Your task to perform on an android device: snooze an email in the gmail app Image 0: 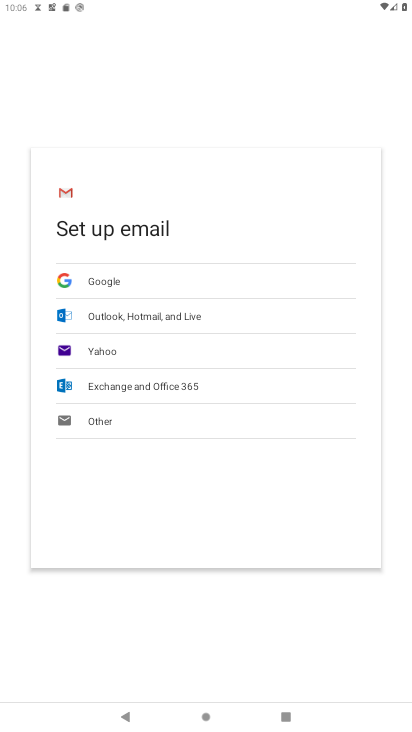
Step 0: press home button
Your task to perform on an android device: snooze an email in the gmail app Image 1: 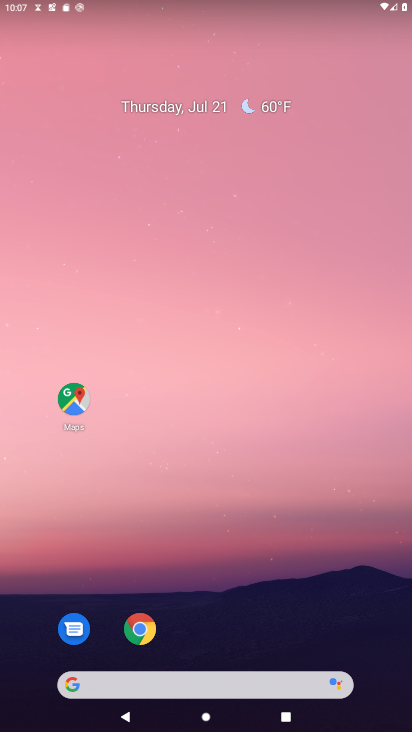
Step 1: drag from (174, 637) to (174, 266)
Your task to perform on an android device: snooze an email in the gmail app Image 2: 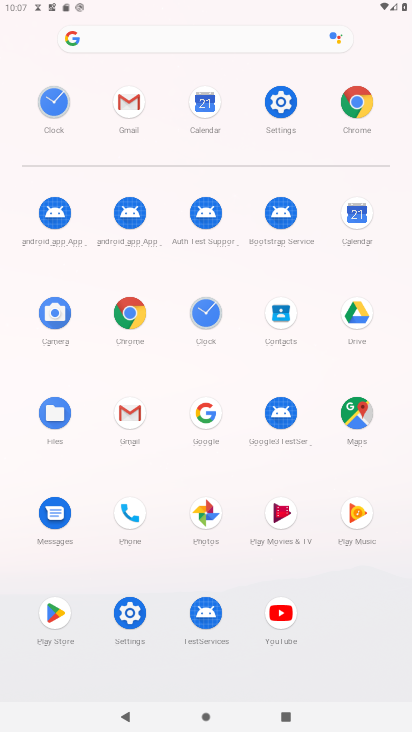
Step 2: click (118, 406)
Your task to perform on an android device: snooze an email in the gmail app Image 3: 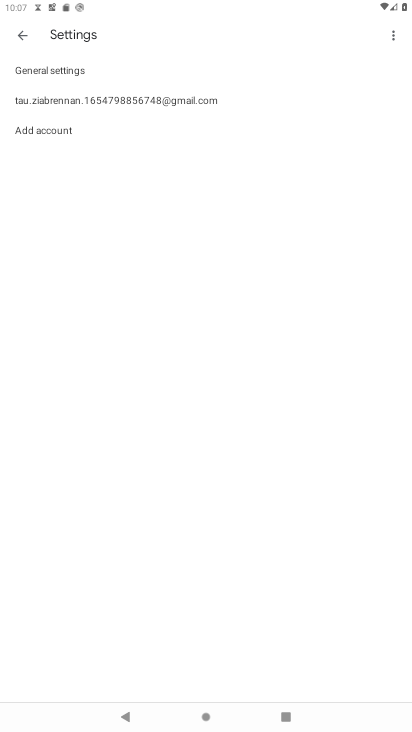
Step 3: click (28, 34)
Your task to perform on an android device: snooze an email in the gmail app Image 4: 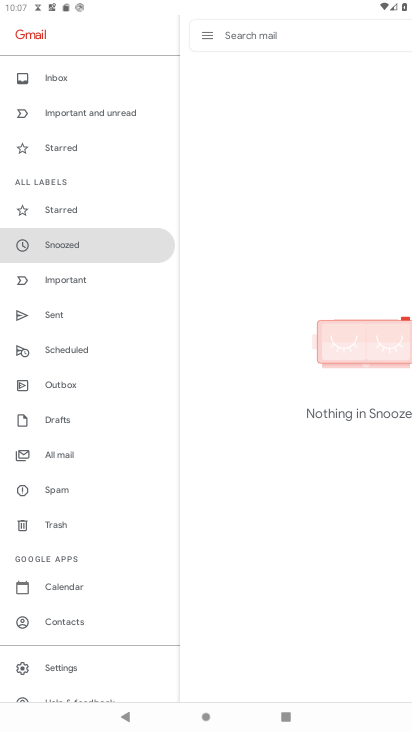
Step 4: task complete